Your task to perform on an android device: turn notification dots on Image 0: 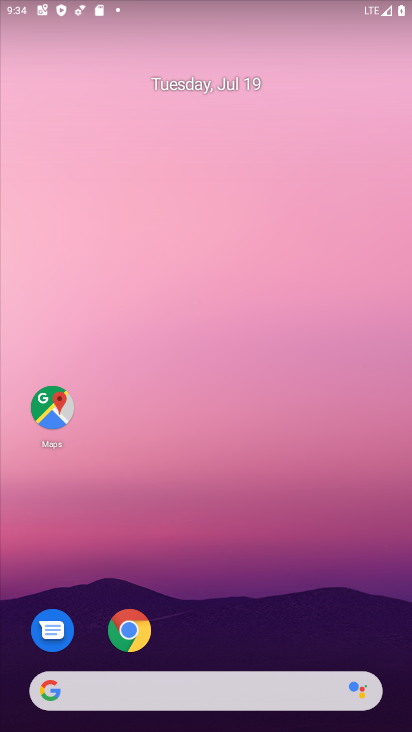
Step 0: drag from (242, 619) to (286, 271)
Your task to perform on an android device: turn notification dots on Image 1: 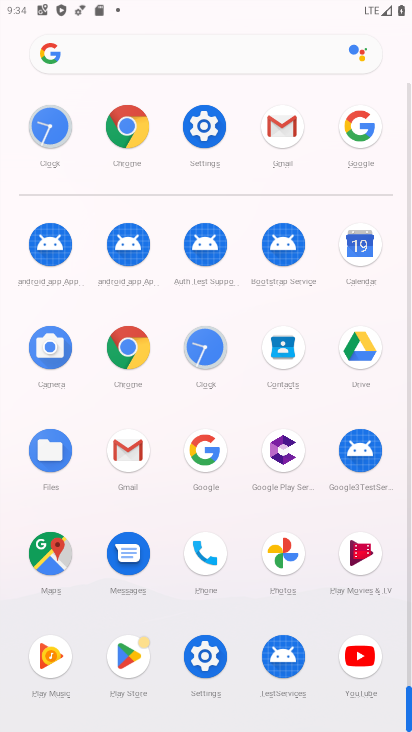
Step 1: click (214, 150)
Your task to perform on an android device: turn notification dots on Image 2: 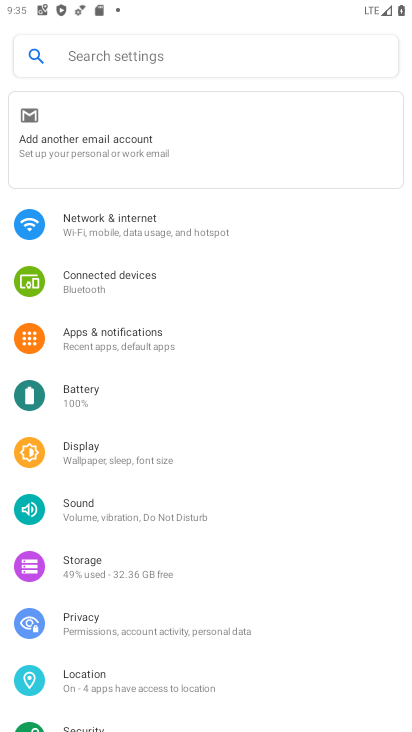
Step 2: click (159, 357)
Your task to perform on an android device: turn notification dots on Image 3: 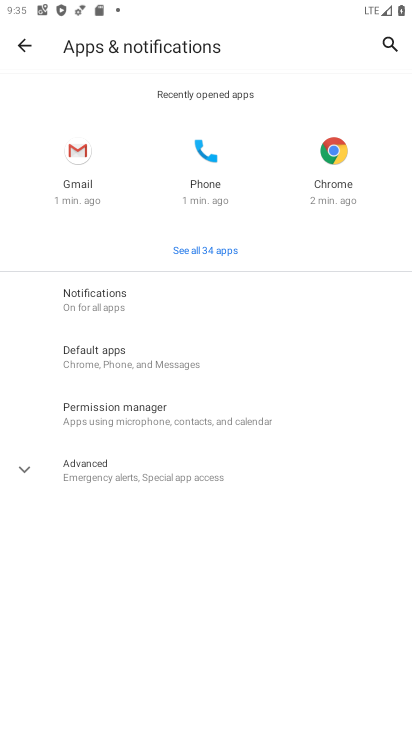
Step 3: click (155, 320)
Your task to perform on an android device: turn notification dots on Image 4: 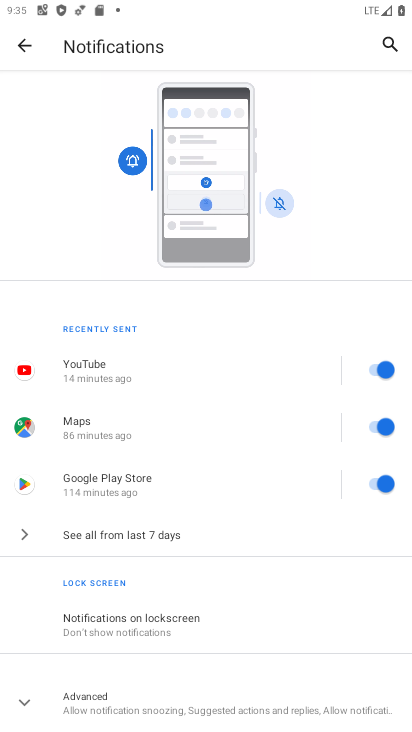
Step 4: drag from (128, 610) to (181, 330)
Your task to perform on an android device: turn notification dots on Image 5: 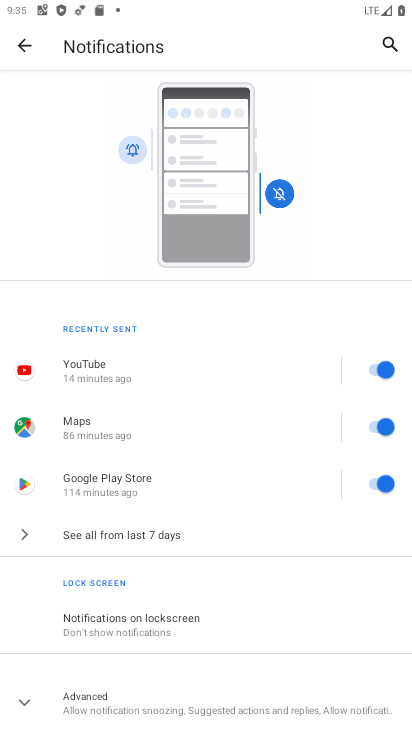
Step 5: click (173, 718)
Your task to perform on an android device: turn notification dots on Image 6: 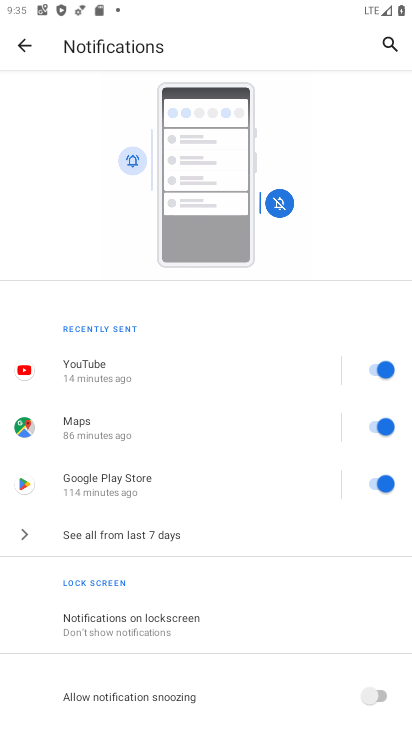
Step 6: task complete